Your task to perform on an android device: Open location settings Image 0: 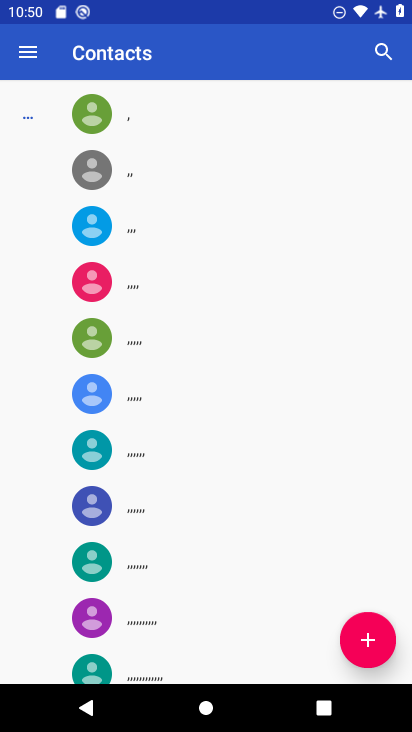
Step 0: press home button
Your task to perform on an android device: Open location settings Image 1: 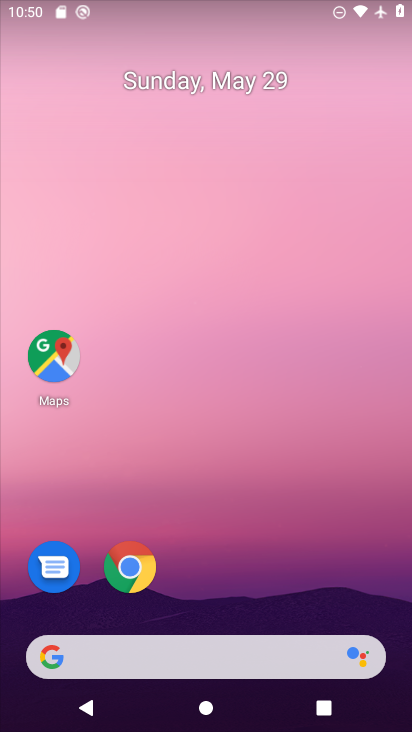
Step 1: drag from (371, 584) to (307, 98)
Your task to perform on an android device: Open location settings Image 2: 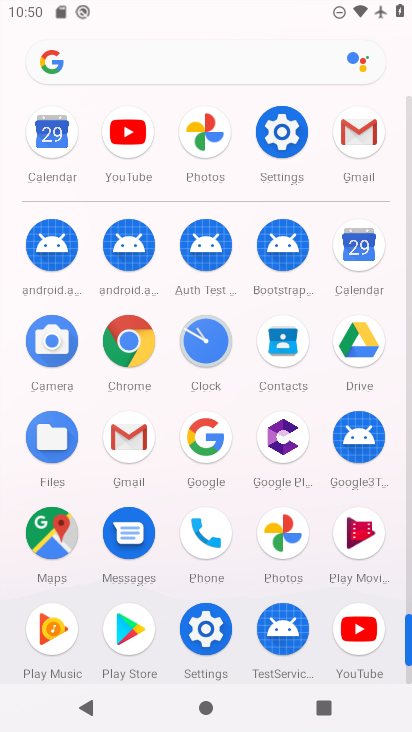
Step 2: click (207, 632)
Your task to perform on an android device: Open location settings Image 3: 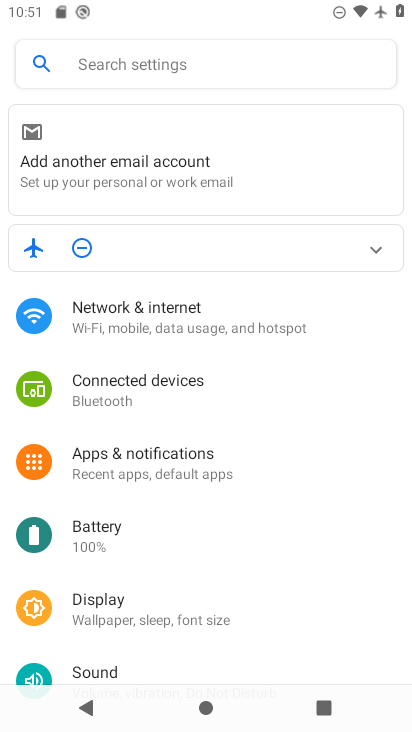
Step 3: drag from (238, 618) to (222, 240)
Your task to perform on an android device: Open location settings Image 4: 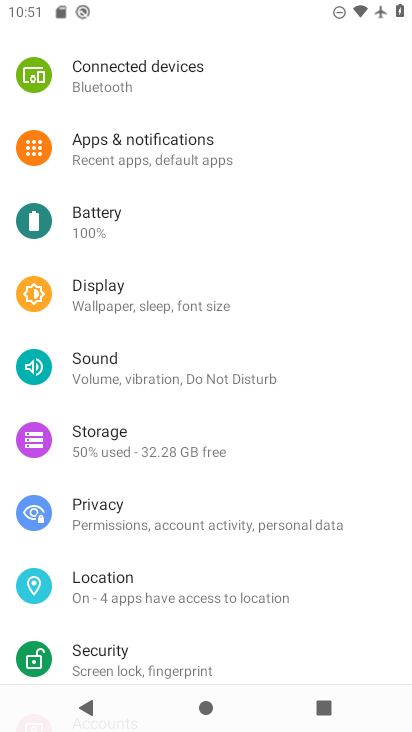
Step 4: click (121, 594)
Your task to perform on an android device: Open location settings Image 5: 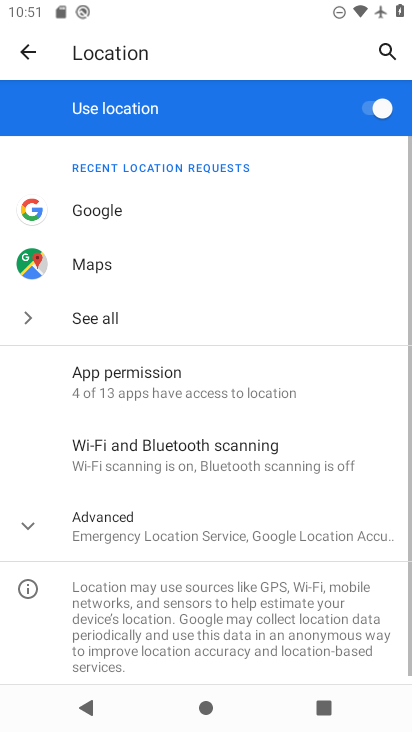
Step 5: click (26, 530)
Your task to perform on an android device: Open location settings Image 6: 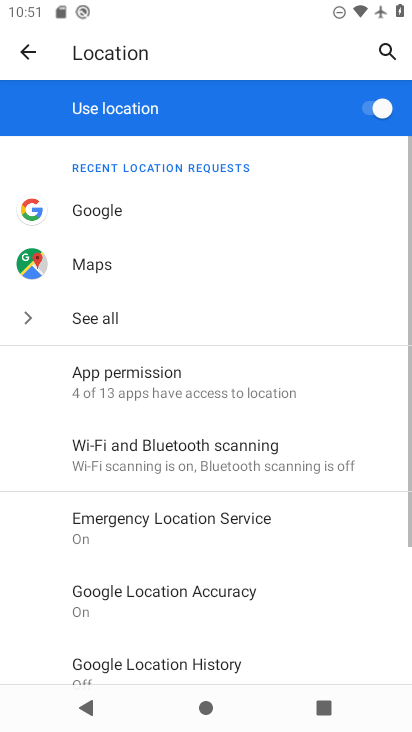
Step 6: task complete